Your task to perform on an android device: Open Chrome and go to the settings page Image 0: 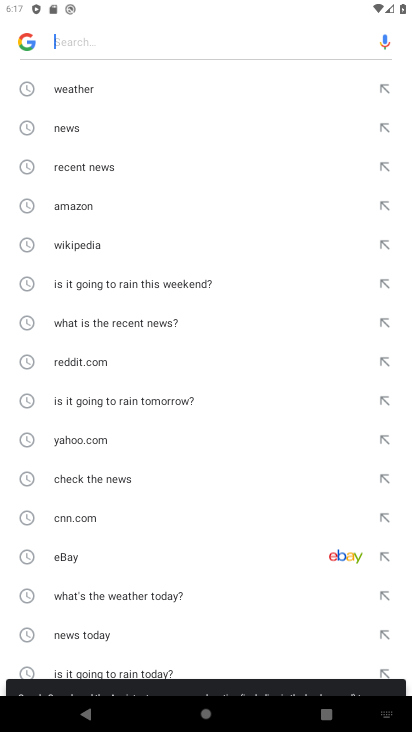
Step 0: press home button
Your task to perform on an android device: Open Chrome and go to the settings page Image 1: 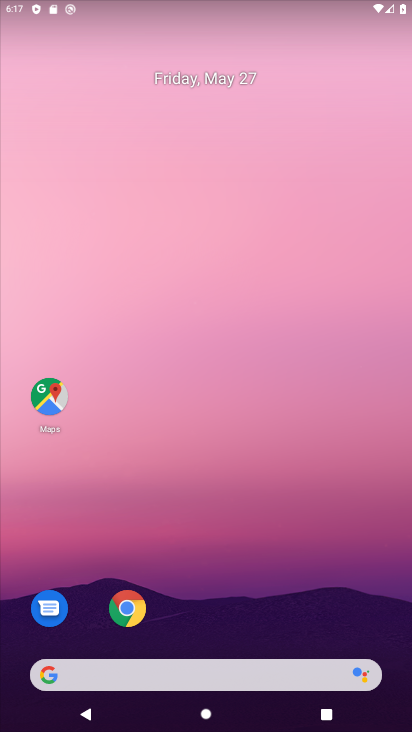
Step 1: click (124, 598)
Your task to perform on an android device: Open Chrome and go to the settings page Image 2: 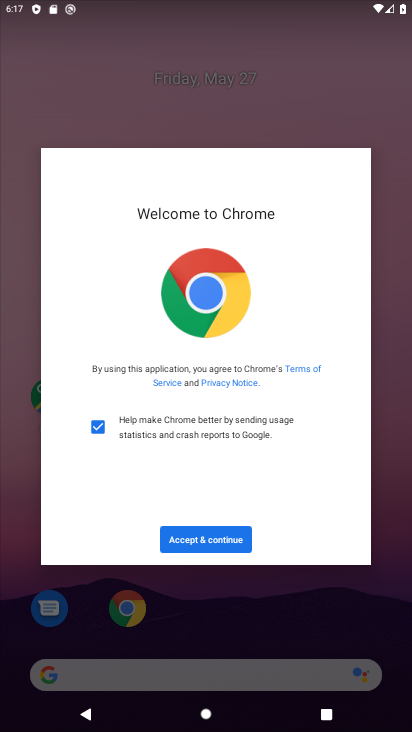
Step 2: click (203, 540)
Your task to perform on an android device: Open Chrome and go to the settings page Image 3: 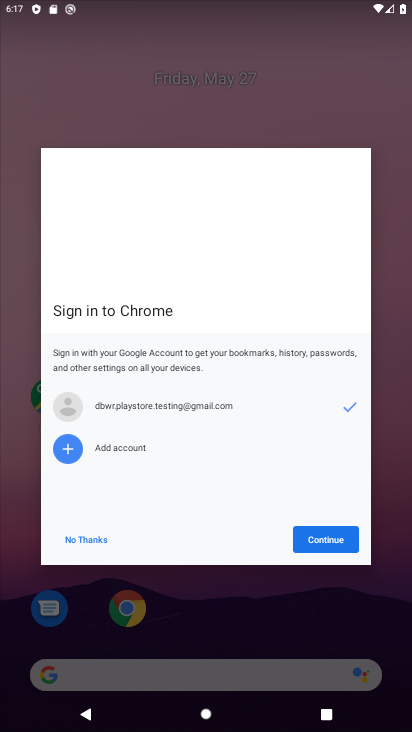
Step 3: click (327, 536)
Your task to perform on an android device: Open Chrome and go to the settings page Image 4: 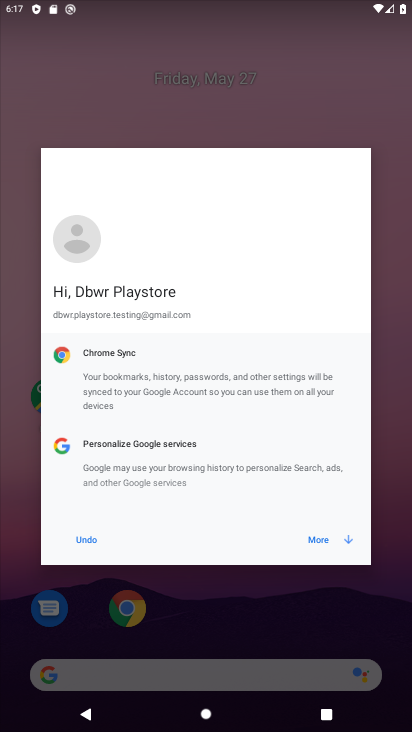
Step 4: click (327, 536)
Your task to perform on an android device: Open Chrome and go to the settings page Image 5: 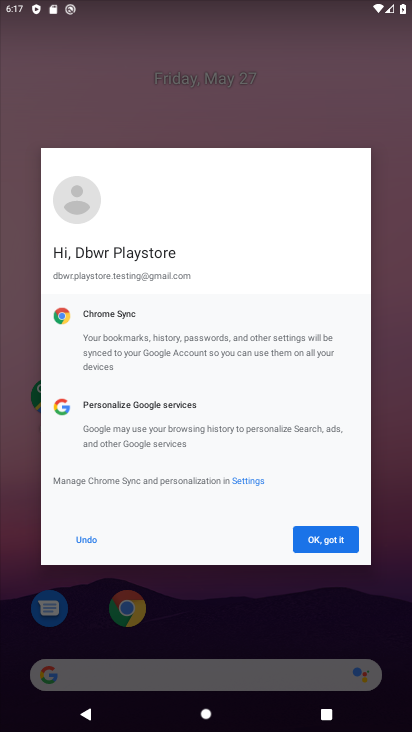
Step 5: click (327, 536)
Your task to perform on an android device: Open Chrome and go to the settings page Image 6: 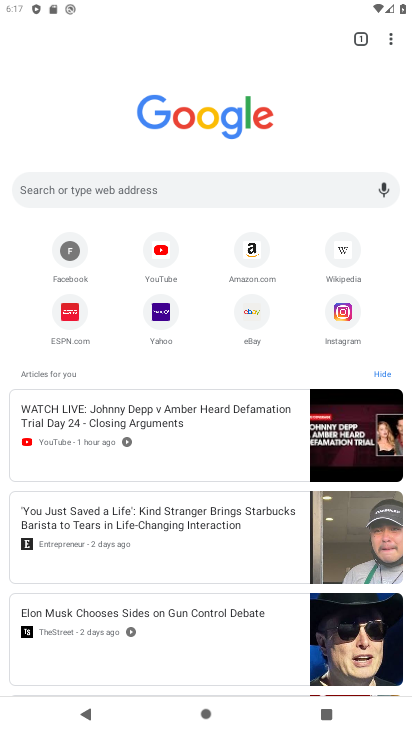
Step 6: click (392, 31)
Your task to perform on an android device: Open Chrome and go to the settings page Image 7: 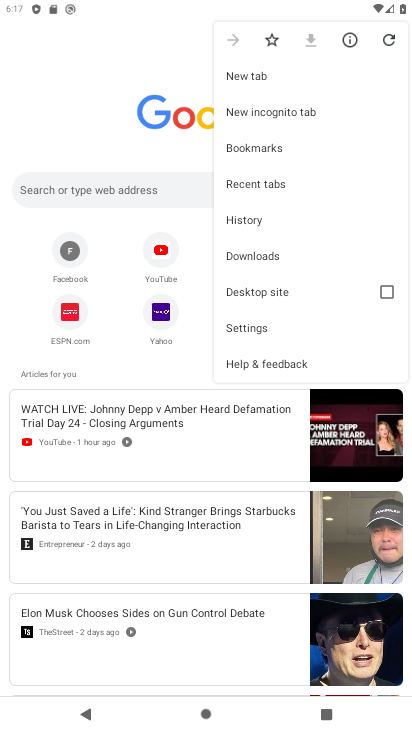
Step 7: click (269, 325)
Your task to perform on an android device: Open Chrome and go to the settings page Image 8: 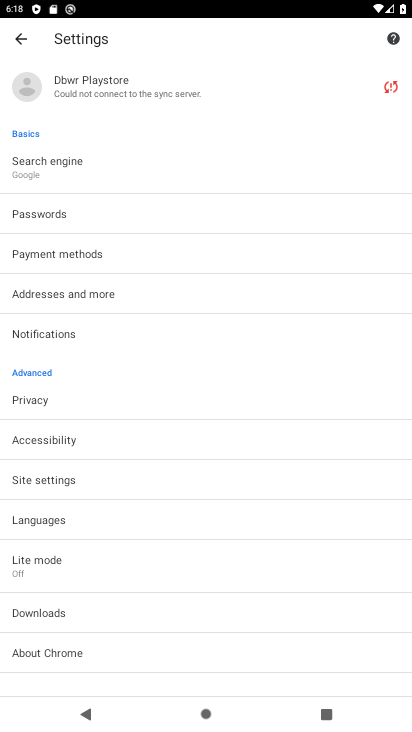
Step 8: task complete